Your task to perform on an android device: check android version Image 0: 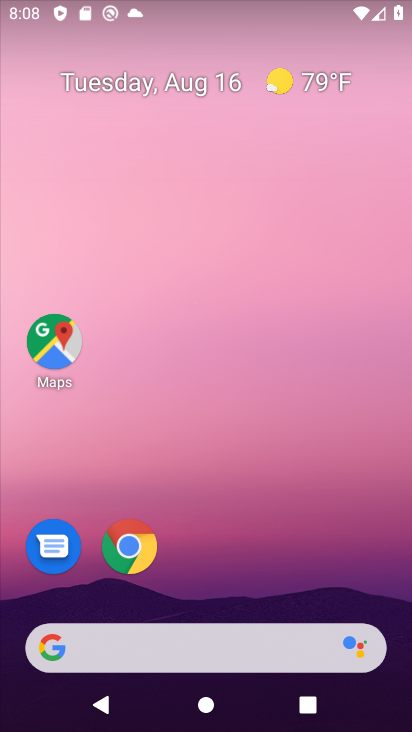
Step 0: drag from (196, 468) to (281, 26)
Your task to perform on an android device: check android version Image 1: 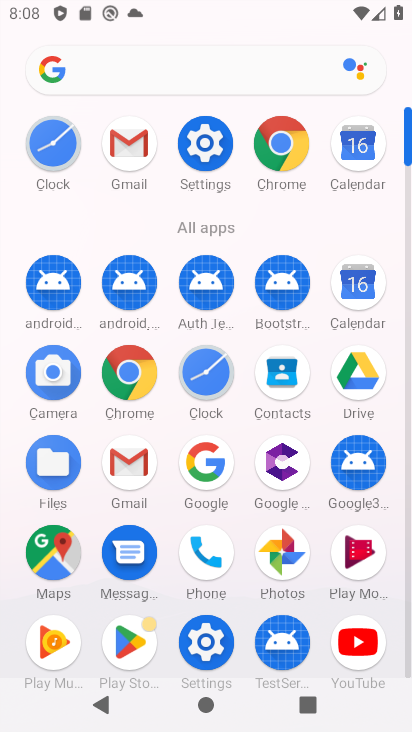
Step 1: click (200, 148)
Your task to perform on an android device: check android version Image 2: 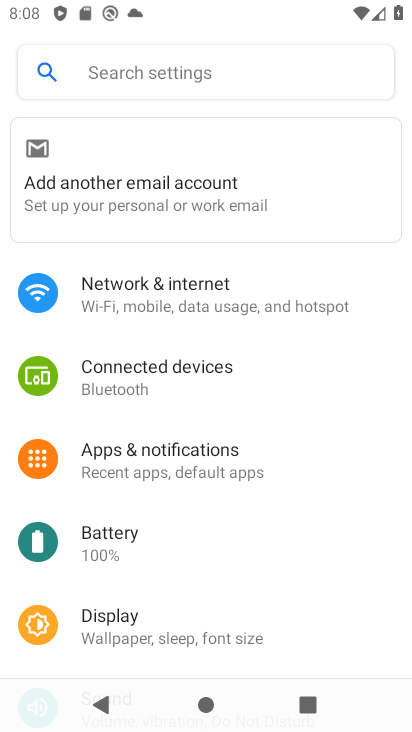
Step 2: drag from (155, 636) to (173, 178)
Your task to perform on an android device: check android version Image 3: 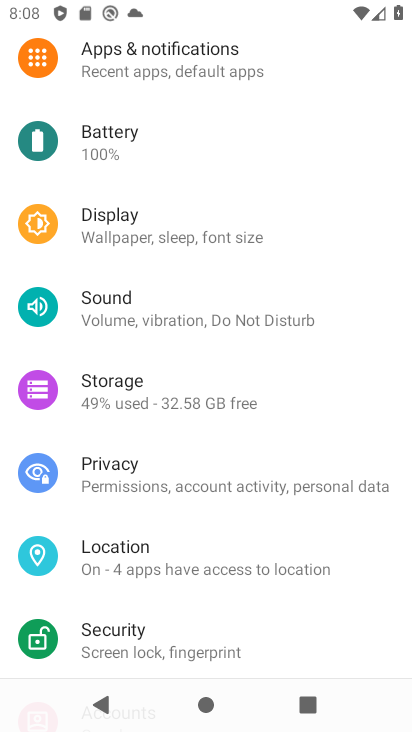
Step 3: drag from (176, 477) to (208, 275)
Your task to perform on an android device: check android version Image 4: 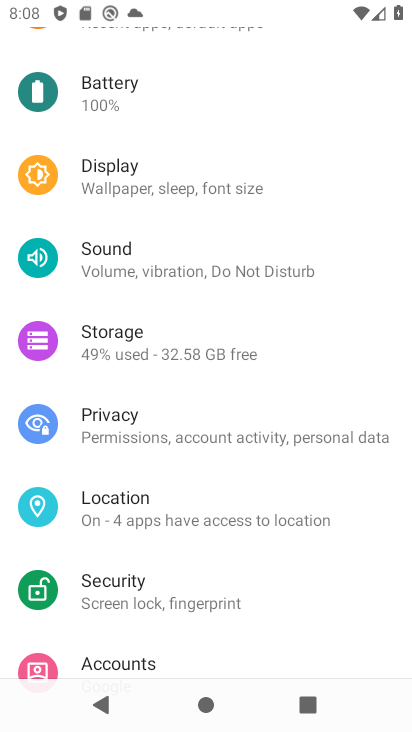
Step 4: drag from (152, 650) to (152, 311)
Your task to perform on an android device: check android version Image 5: 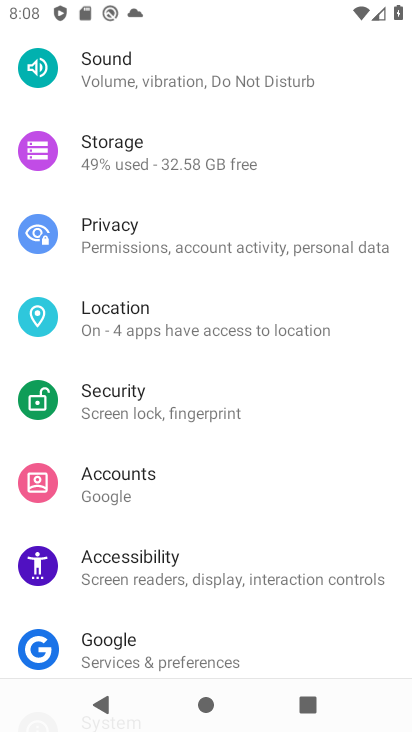
Step 5: drag from (145, 615) to (185, 223)
Your task to perform on an android device: check android version Image 6: 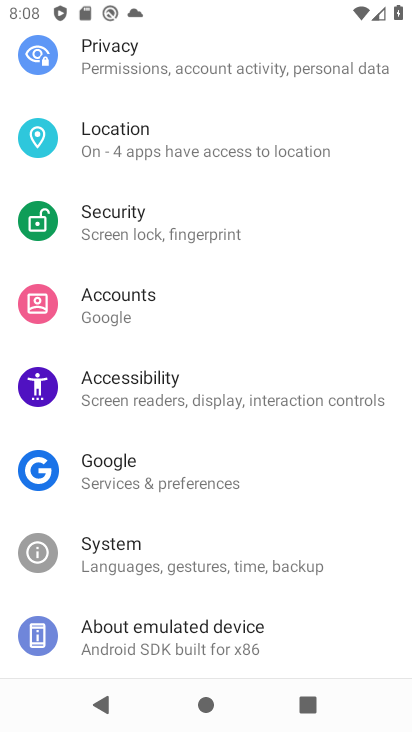
Step 6: click (169, 621)
Your task to perform on an android device: check android version Image 7: 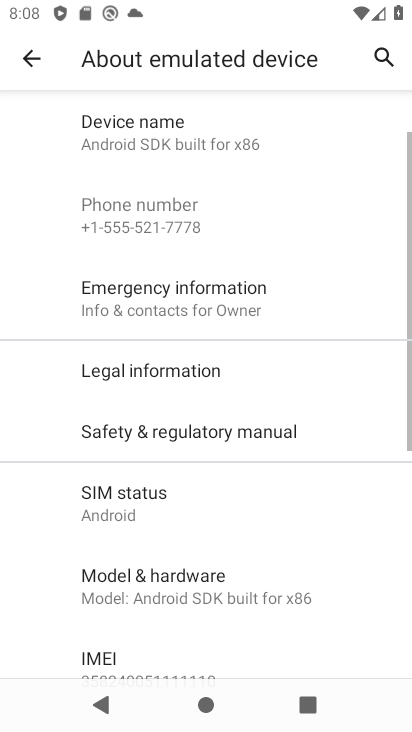
Step 7: drag from (188, 606) to (244, 226)
Your task to perform on an android device: check android version Image 8: 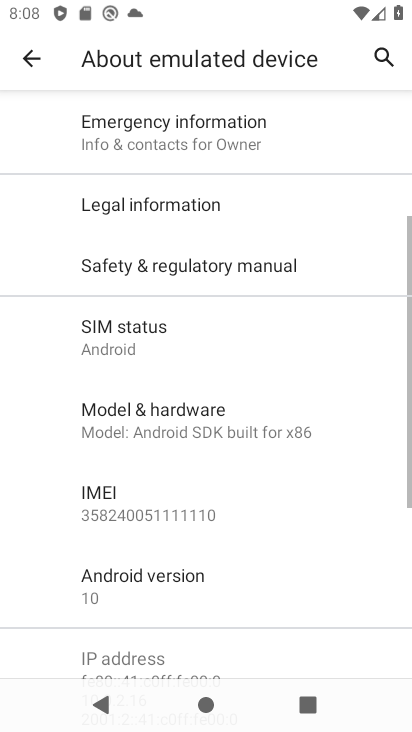
Step 8: click (131, 586)
Your task to perform on an android device: check android version Image 9: 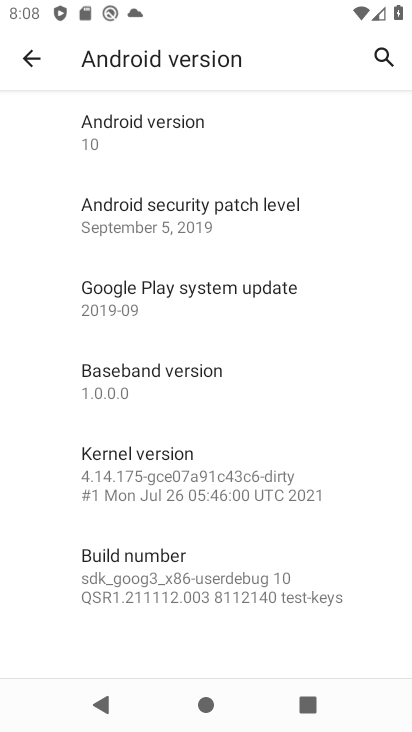
Step 9: task complete